Your task to perform on an android device: install app "Pluto TV - Live TV and Movies" Image 0: 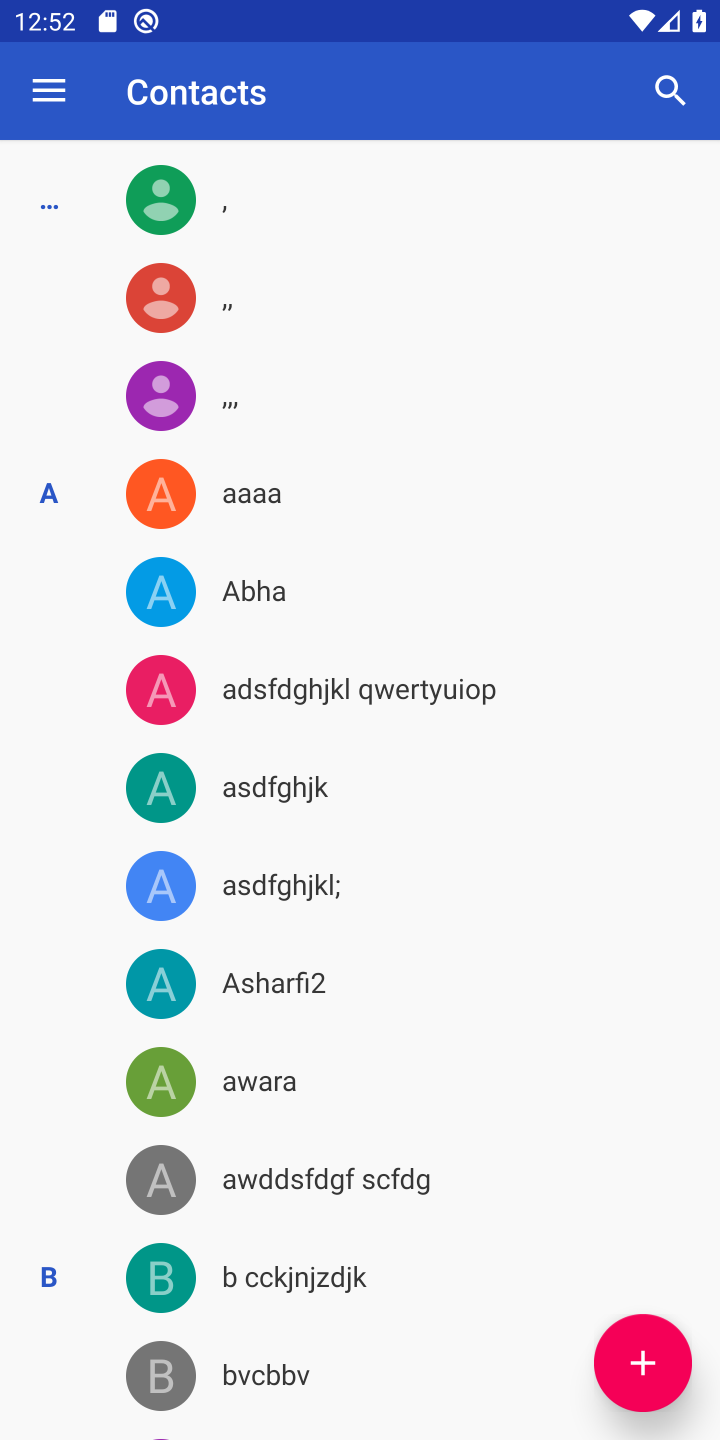
Step 0: press home button
Your task to perform on an android device: install app "Pluto TV - Live TV and Movies" Image 1: 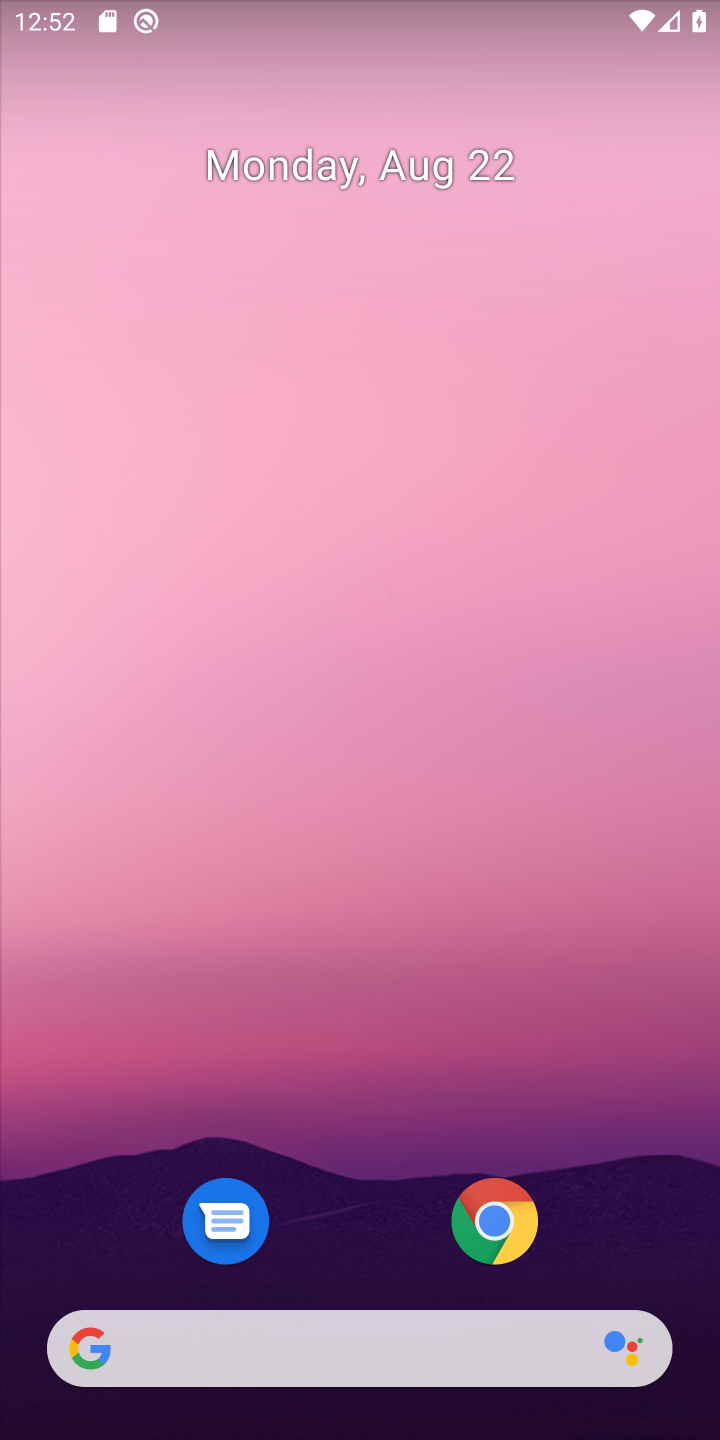
Step 1: drag from (362, 1221) to (466, 343)
Your task to perform on an android device: install app "Pluto TV - Live TV and Movies" Image 2: 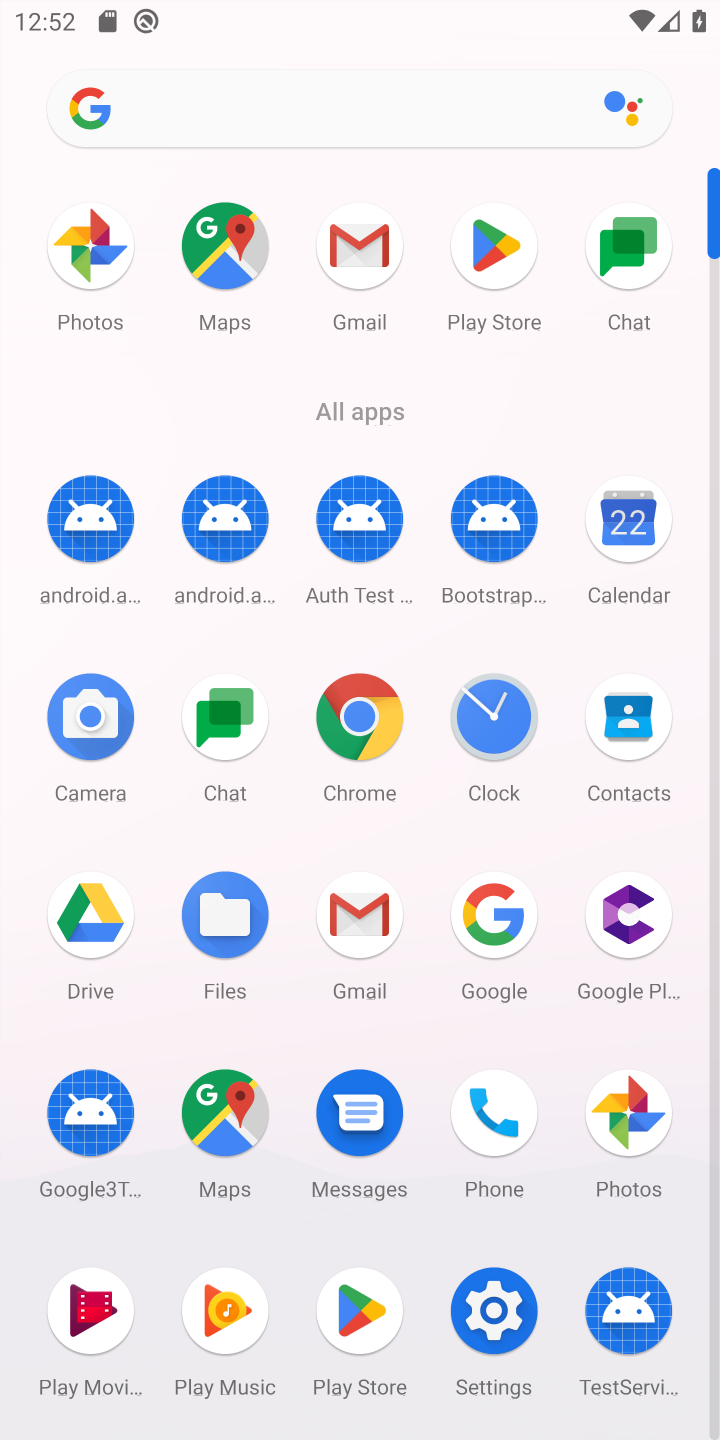
Step 2: click (503, 234)
Your task to perform on an android device: install app "Pluto TV - Live TV and Movies" Image 3: 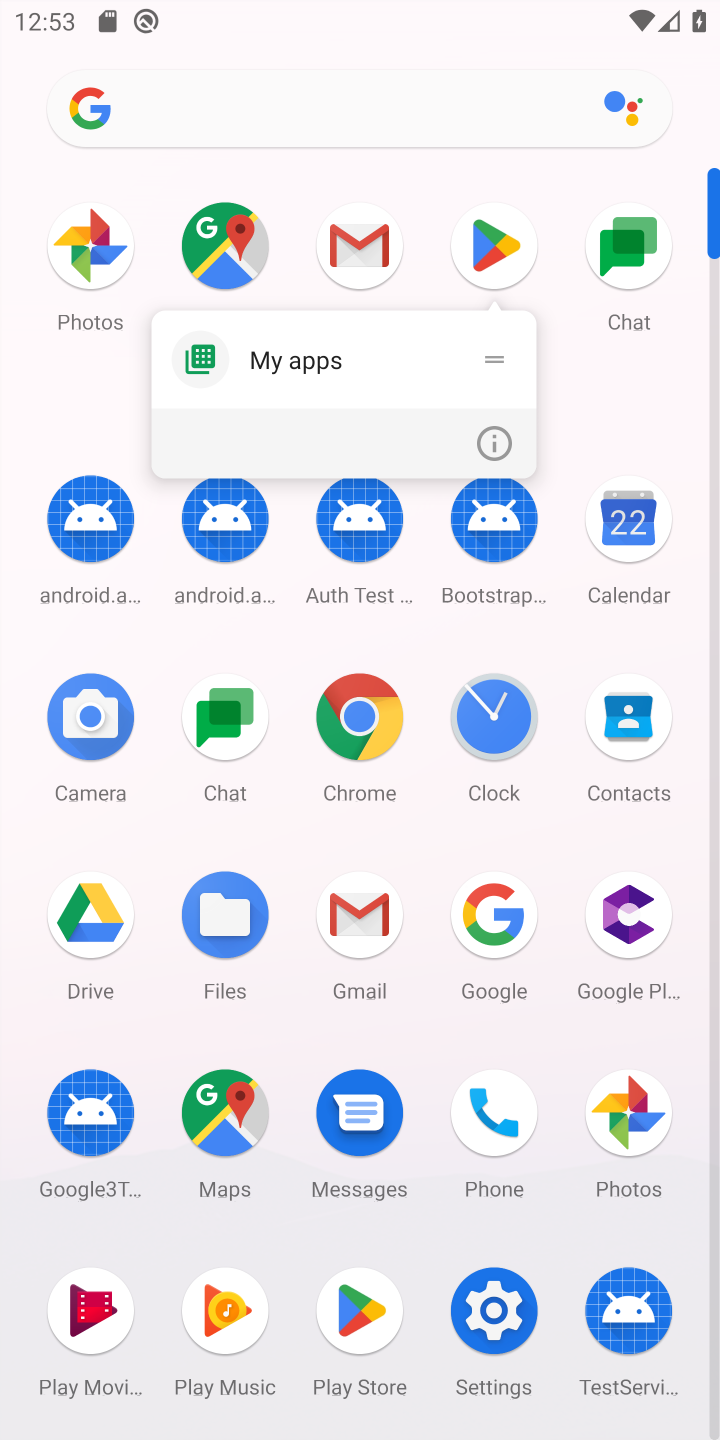
Step 3: click (479, 242)
Your task to perform on an android device: install app "Pluto TV - Live TV and Movies" Image 4: 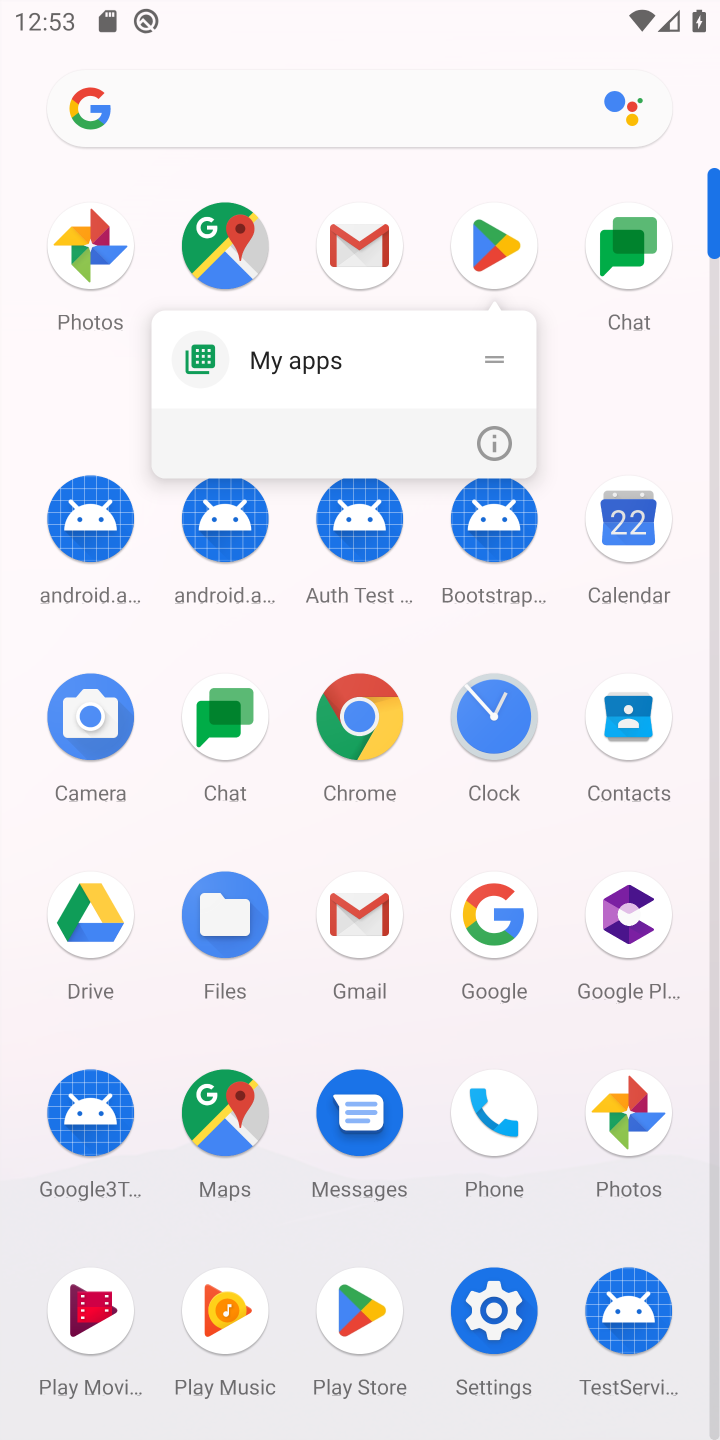
Step 4: click (501, 249)
Your task to perform on an android device: install app "Pluto TV - Live TV and Movies" Image 5: 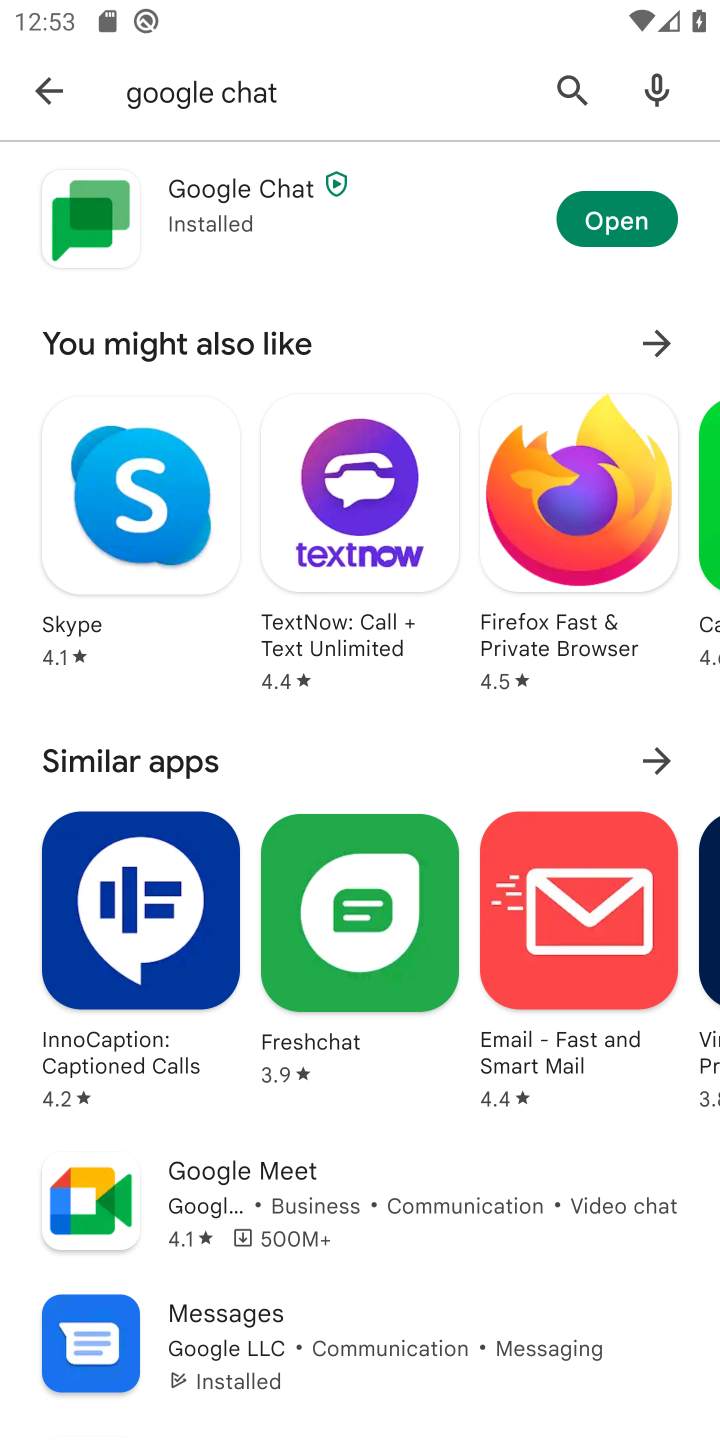
Step 5: click (578, 81)
Your task to perform on an android device: install app "Pluto TV - Live TV and Movies" Image 6: 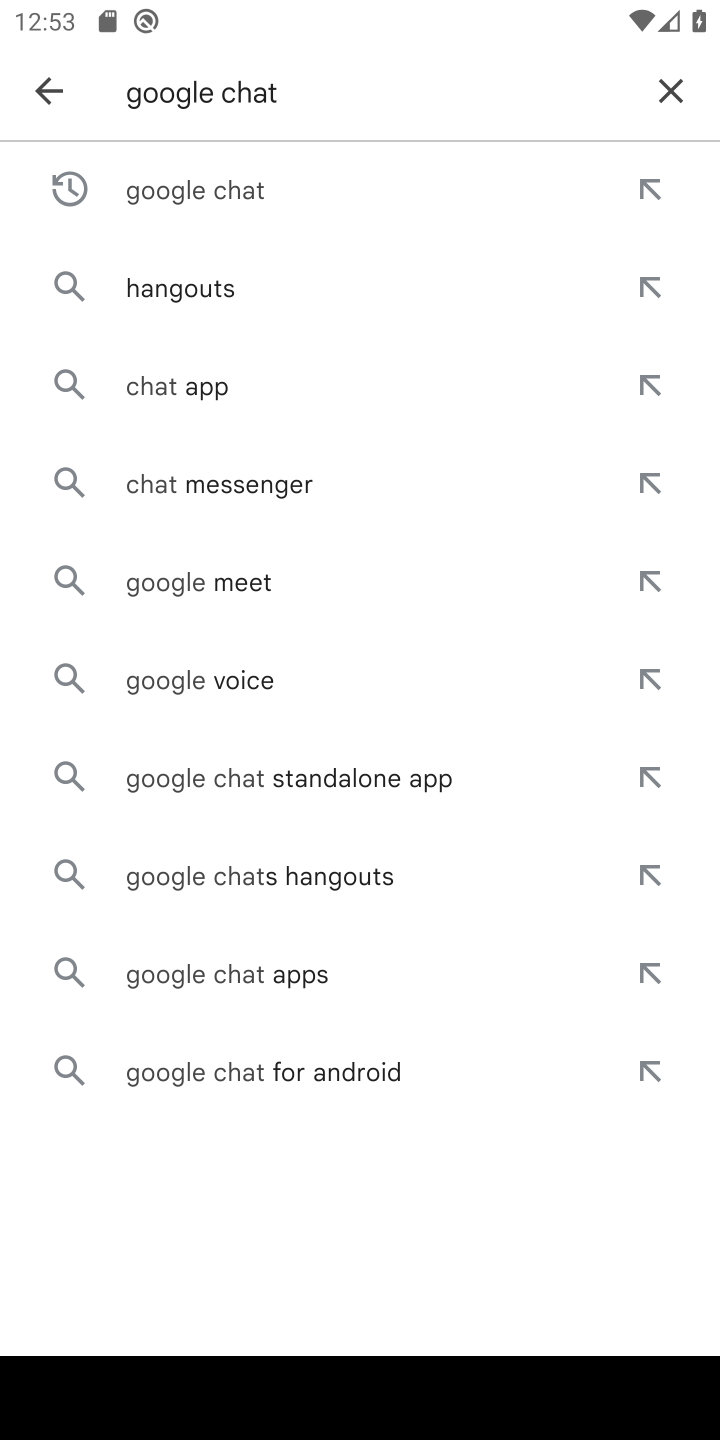
Step 6: click (665, 86)
Your task to perform on an android device: install app "Pluto TV - Live TV and Movies" Image 7: 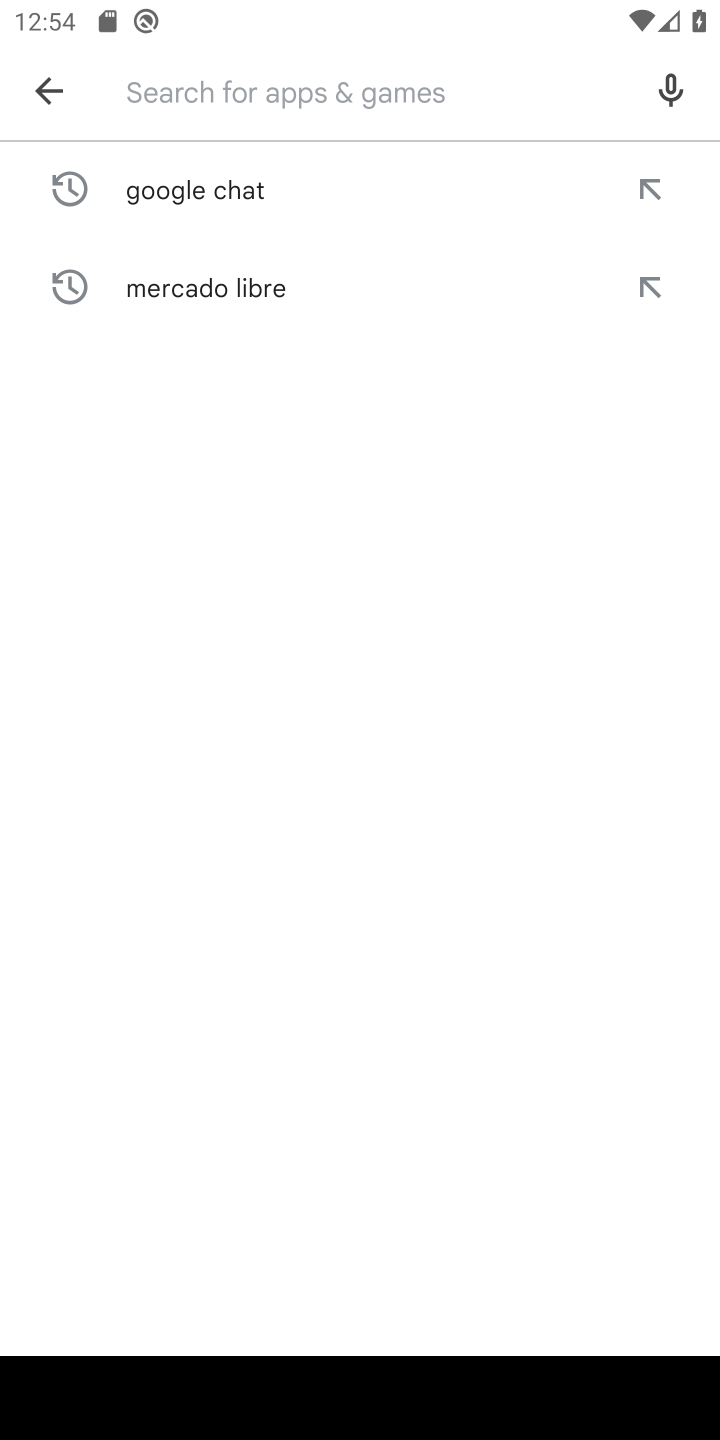
Step 7: type "Pluto TV - Live TV and Movies"
Your task to perform on an android device: install app "Pluto TV - Live TV and Movies" Image 8: 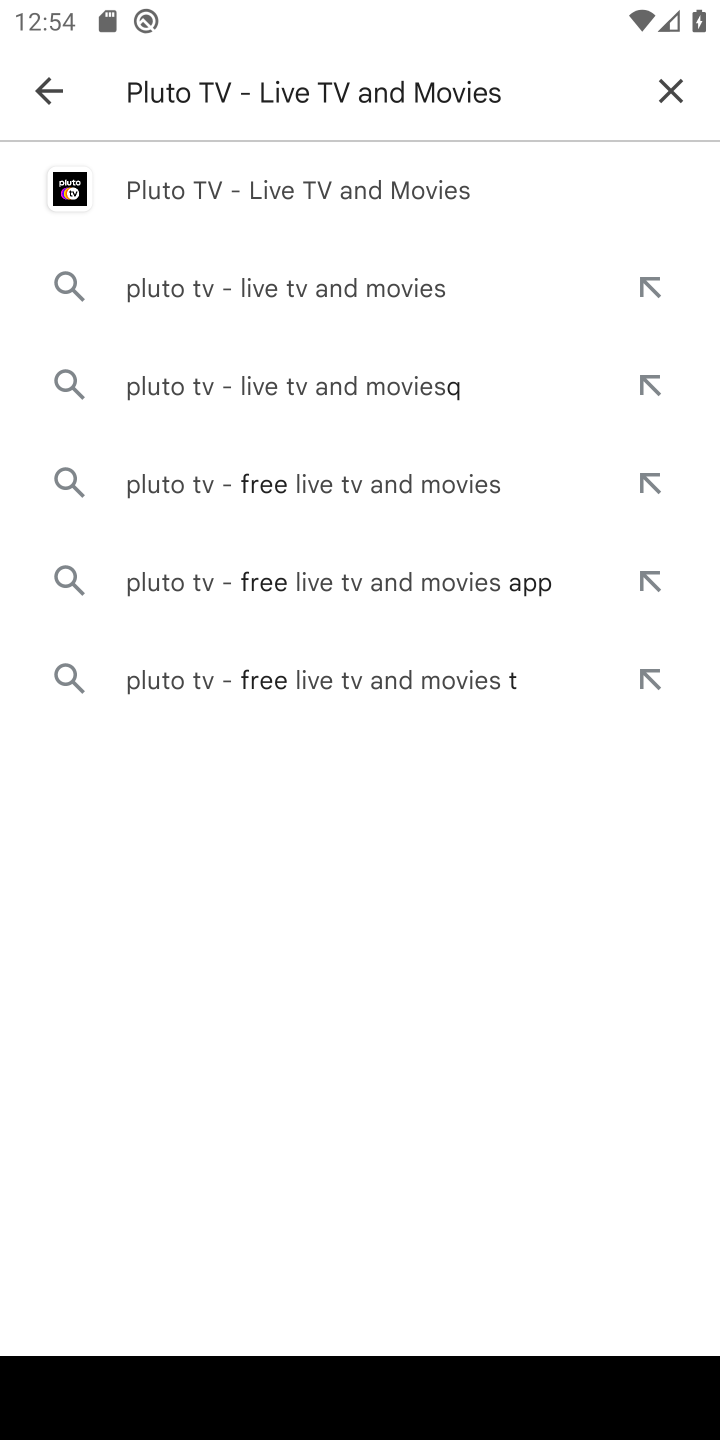
Step 8: click (169, 193)
Your task to perform on an android device: install app "Pluto TV - Live TV and Movies" Image 9: 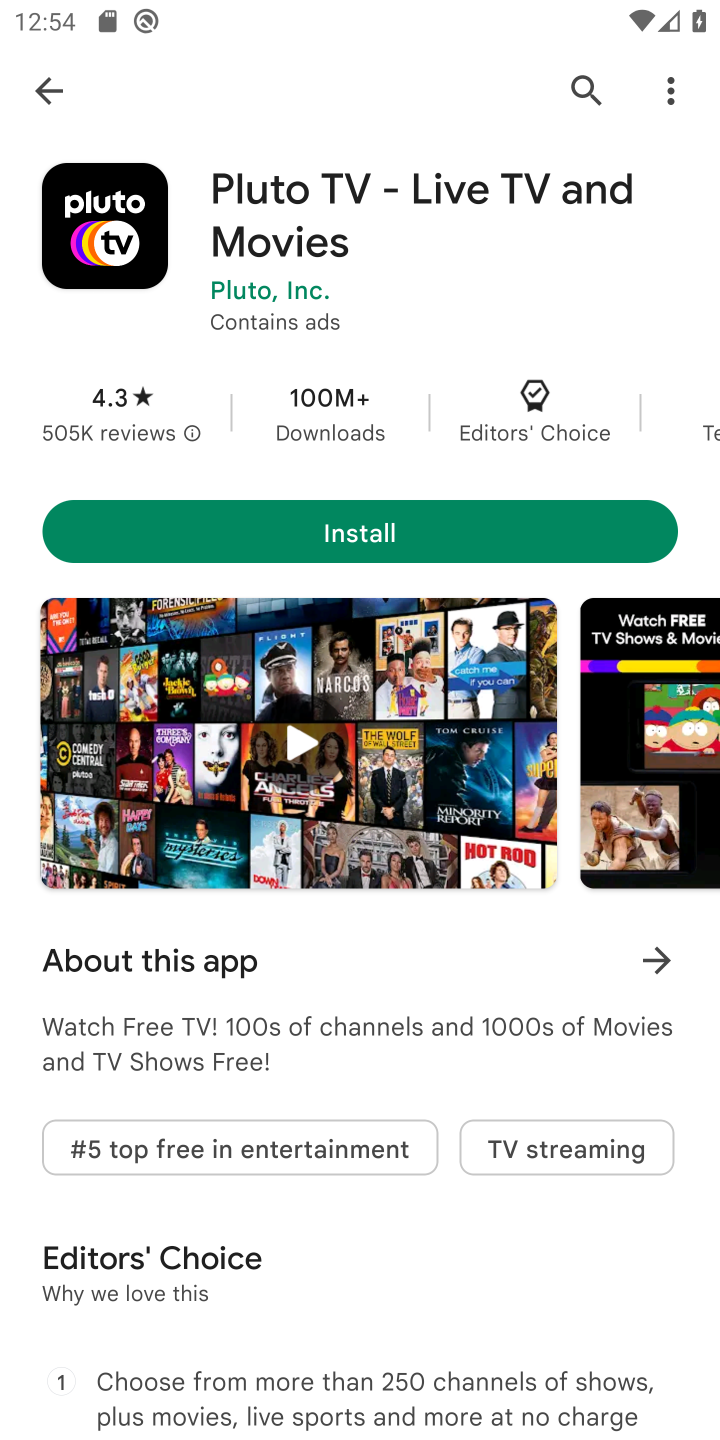
Step 9: click (359, 528)
Your task to perform on an android device: install app "Pluto TV - Live TV and Movies" Image 10: 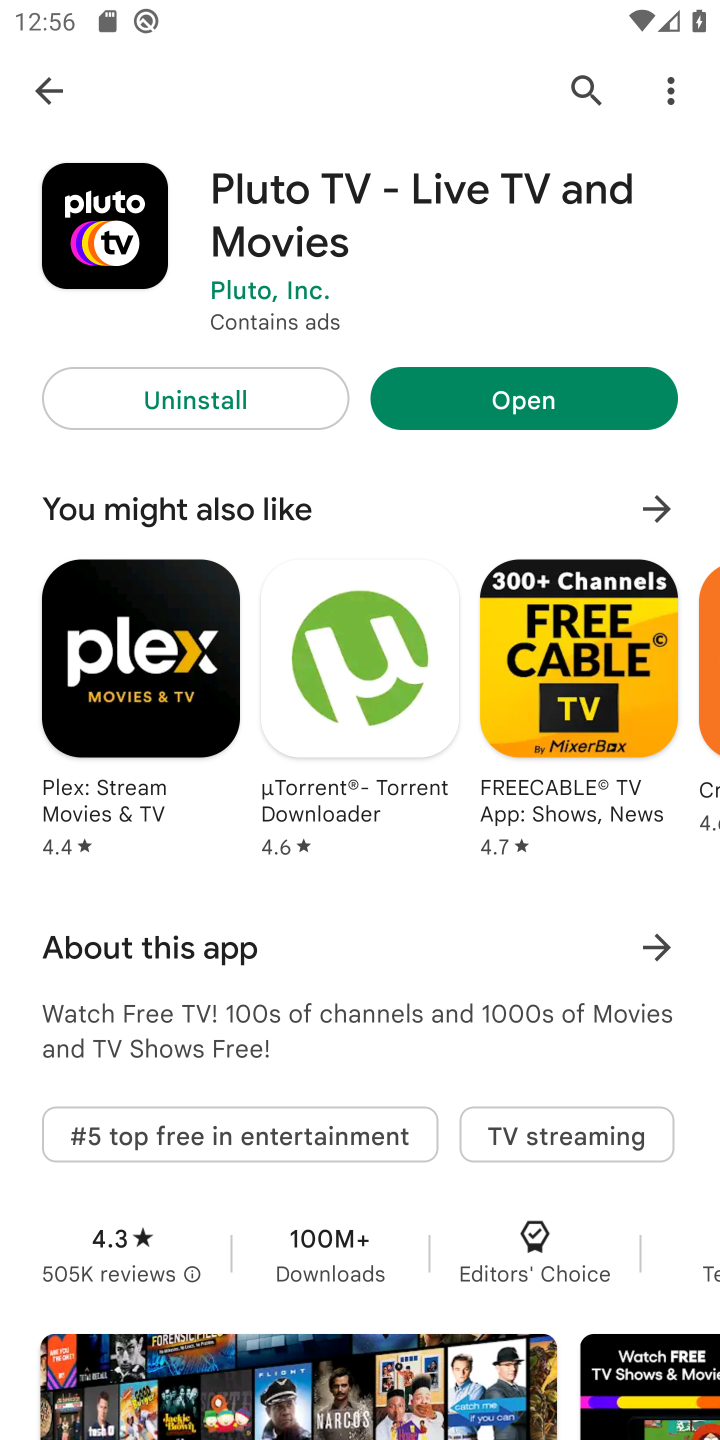
Step 10: click (534, 387)
Your task to perform on an android device: install app "Pluto TV - Live TV and Movies" Image 11: 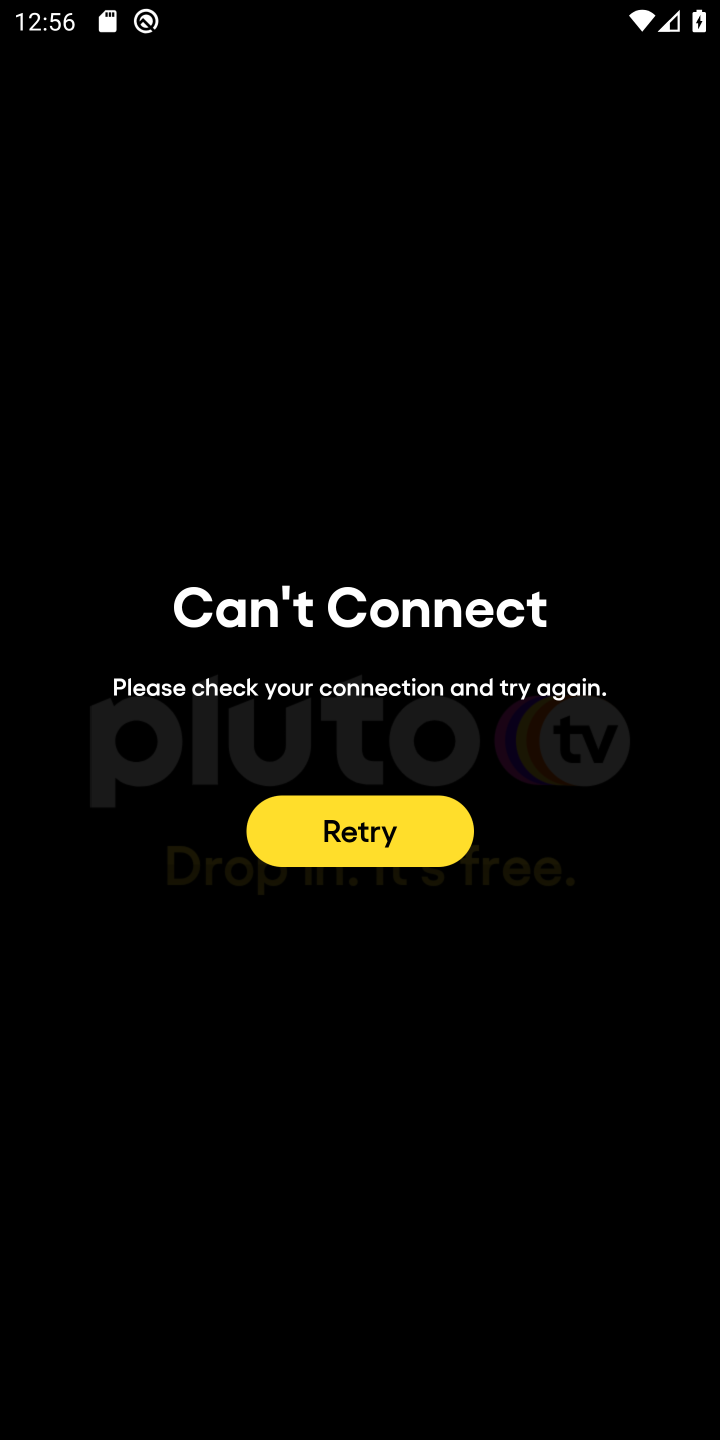
Step 11: click (355, 821)
Your task to perform on an android device: install app "Pluto TV - Live TV and Movies" Image 12: 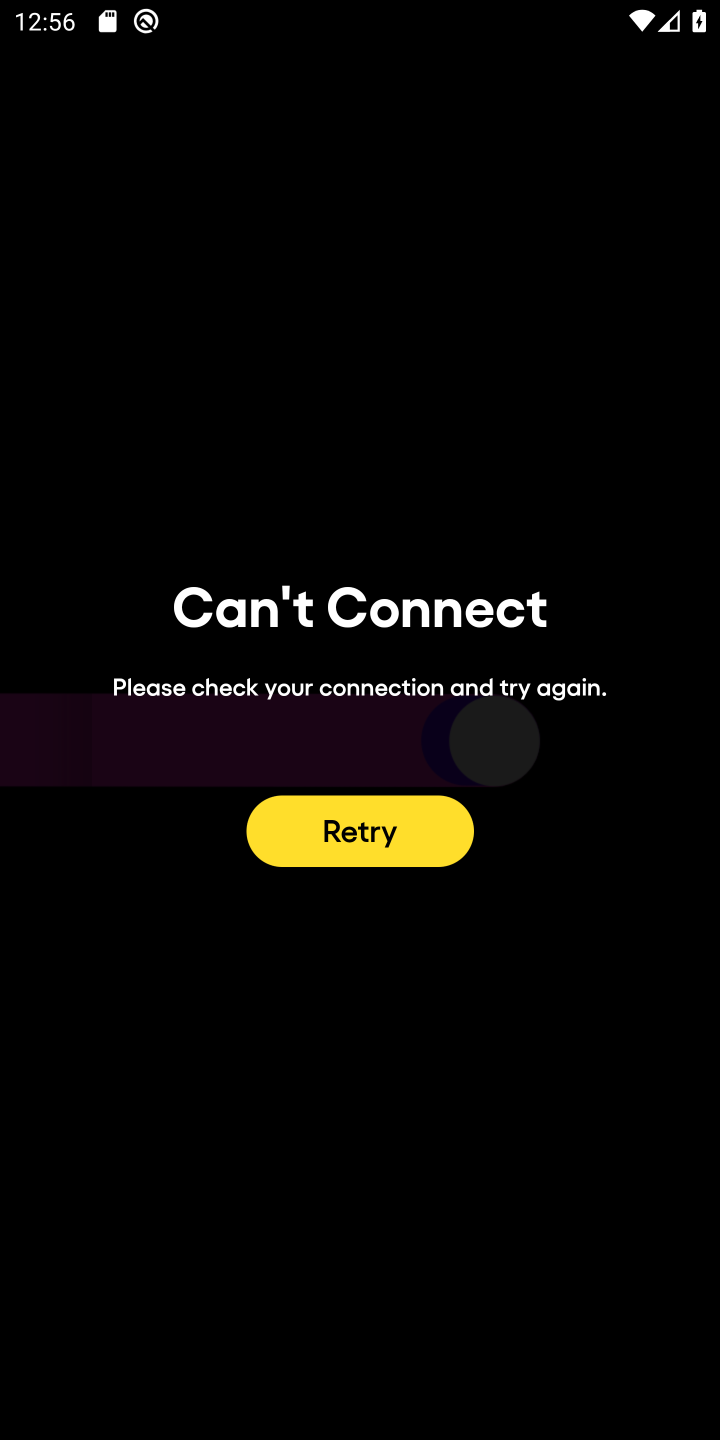
Step 12: task complete